Your task to perform on an android device: Open Chrome and go to the settings page Image 0: 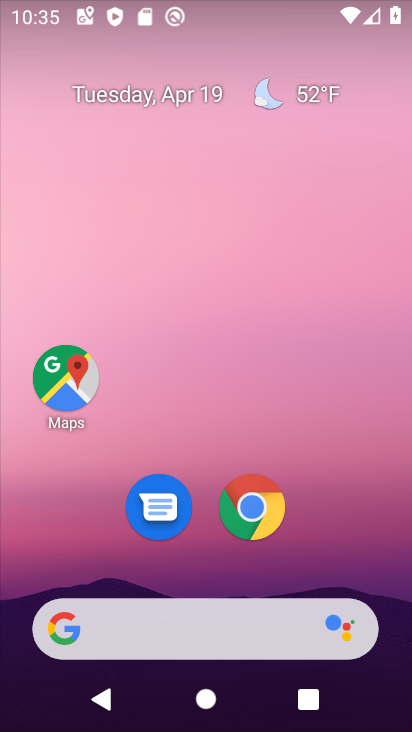
Step 0: drag from (371, 542) to (385, 109)
Your task to perform on an android device: Open Chrome and go to the settings page Image 1: 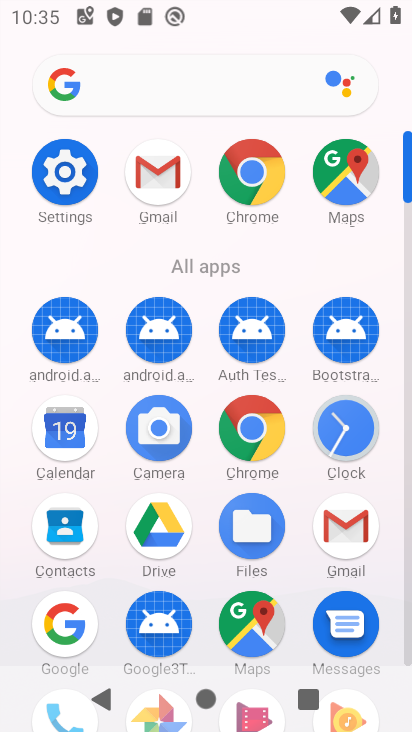
Step 1: click (265, 434)
Your task to perform on an android device: Open Chrome and go to the settings page Image 2: 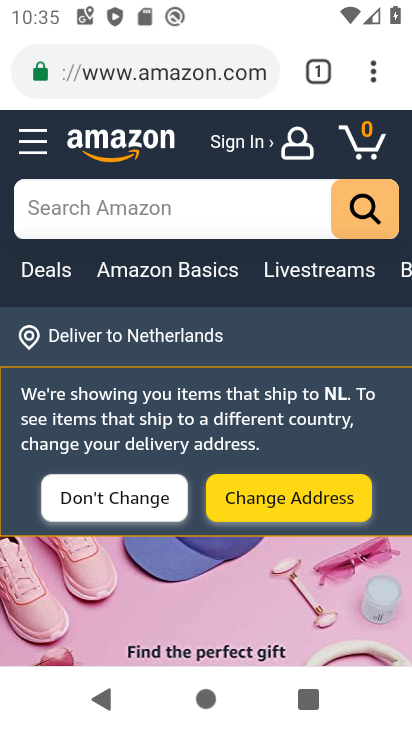
Step 2: click (373, 76)
Your task to perform on an android device: Open Chrome and go to the settings page Image 3: 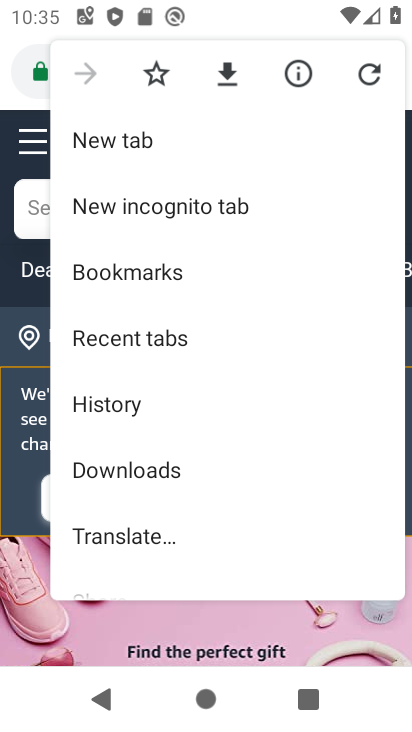
Step 3: drag from (287, 473) to (306, 264)
Your task to perform on an android device: Open Chrome and go to the settings page Image 4: 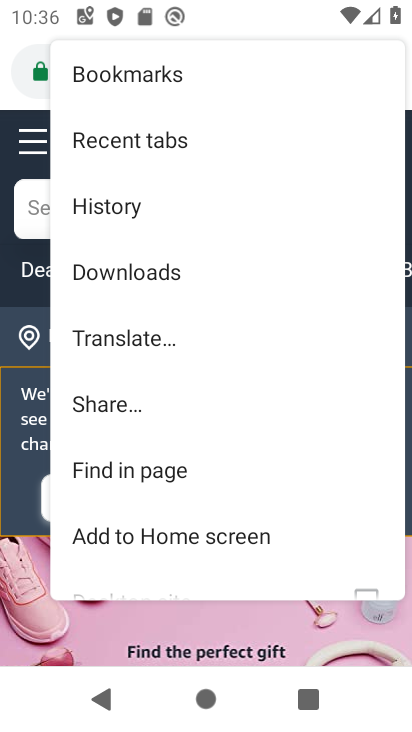
Step 4: drag from (280, 539) to (275, 316)
Your task to perform on an android device: Open Chrome and go to the settings page Image 5: 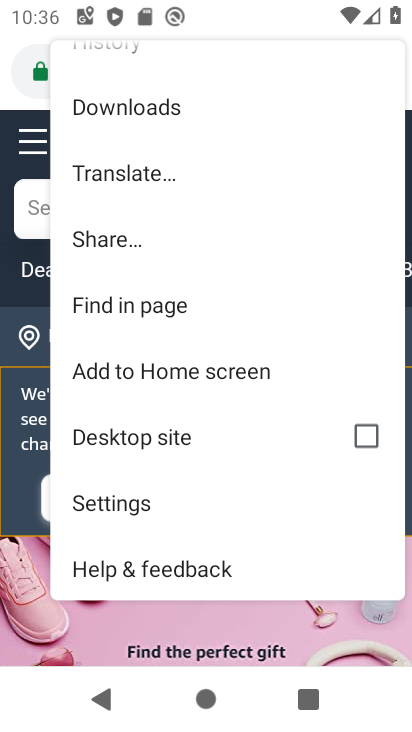
Step 5: click (111, 509)
Your task to perform on an android device: Open Chrome and go to the settings page Image 6: 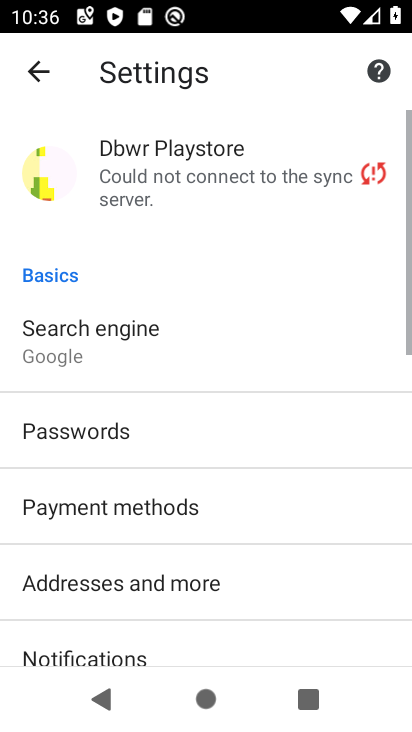
Step 6: task complete